Your task to perform on an android device: Turn on the flashlight Image 0: 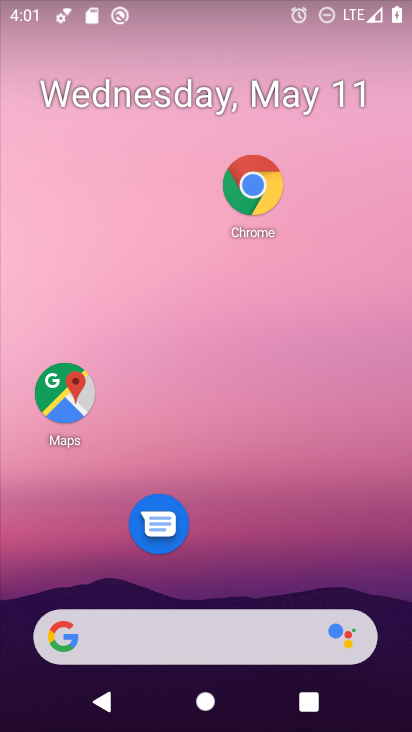
Step 0: drag from (249, 530) to (321, 55)
Your task to perform on an android device: Turn on the flashlight Image 1: 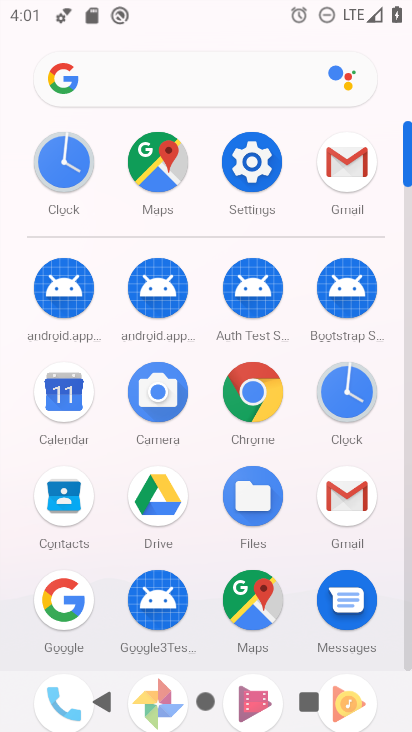
Step 1: click (261, 165)
Your task to perform on an android device: Turn on the flashlight Image 2: 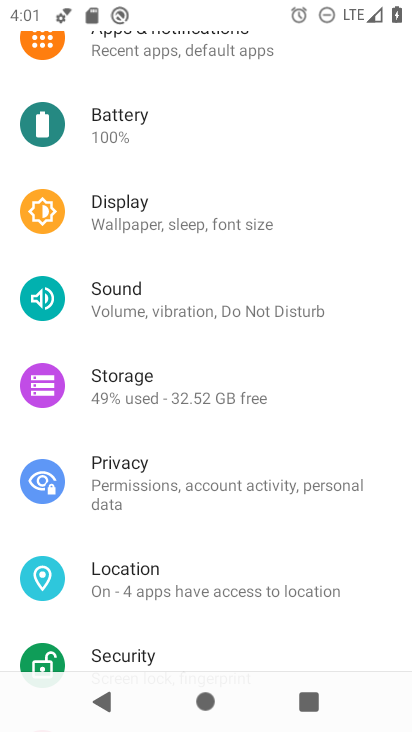
Step 2: drag from (228, 113) to (232, 726)
Your task to perform on an android device: Turn on the flashlight Image 3: 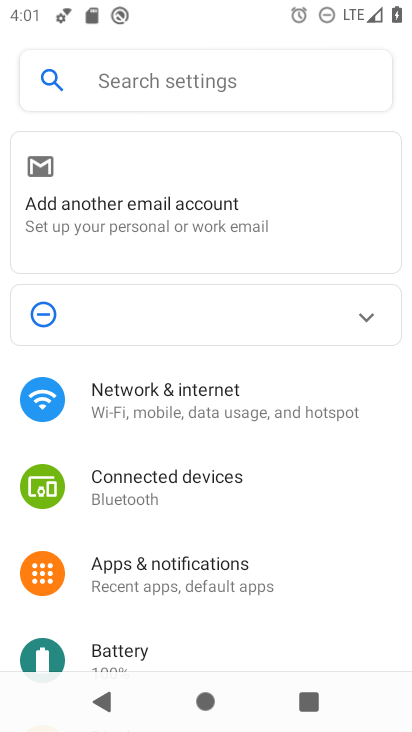
Step 3: click (201, 76)
Your task to perform on an android device: Turn on the flashlight Image 4: 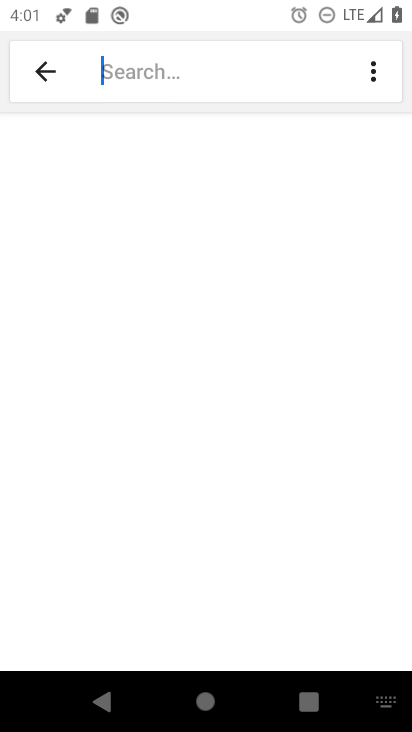
Step 4: type "flashlight"
Your task to perform on an android device: Turn on the flashlight Image 5: 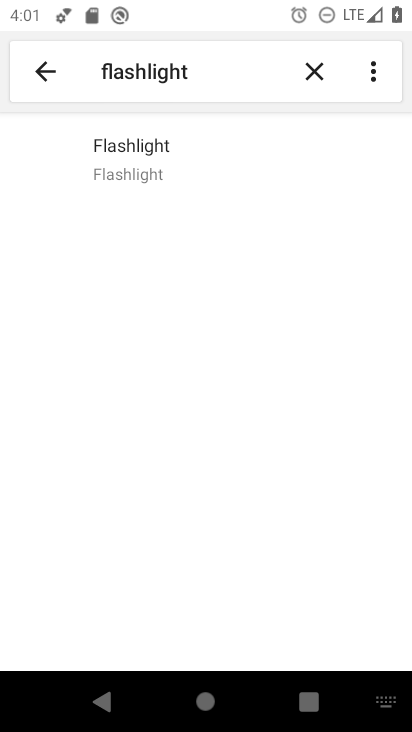
Step 5: click (143, 159)
Your task to perform on an android device: Turn on the flashlight Image 6: 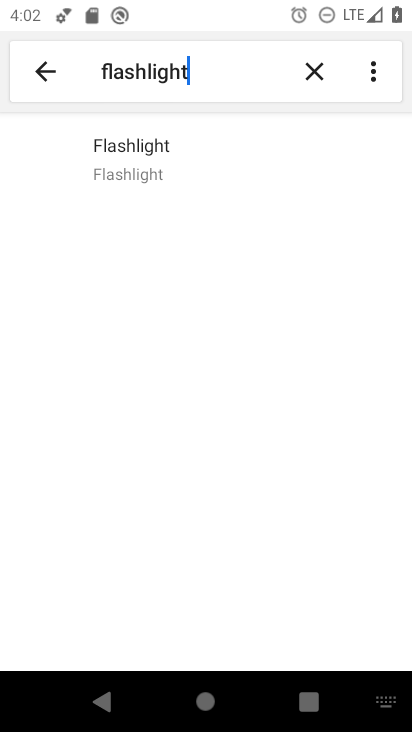
Step 6: task complete